Your task to perform on an android device: Do I have any events this weekend? Image 0: 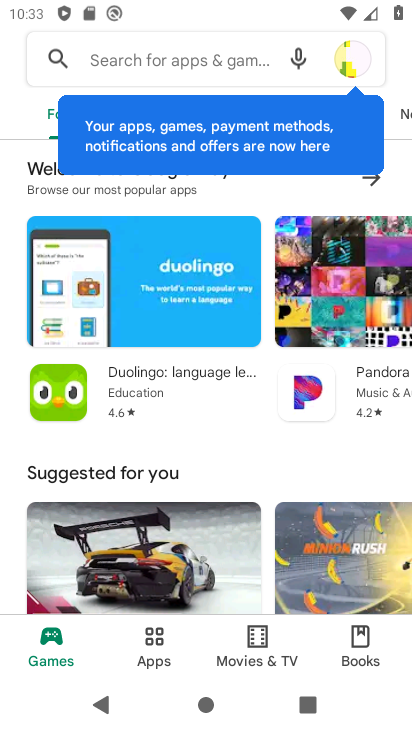
Step 0: press home button
Your task to perform on an android device: Do I have any events this weekend? Image 1: 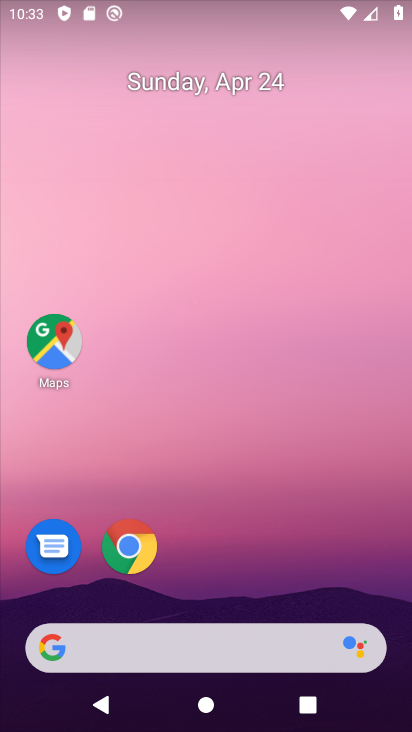
Step 1: drag from (240, 571) to (199, 109)
Your task to perform on an android device: Do I have any events this weekend? Image 2: 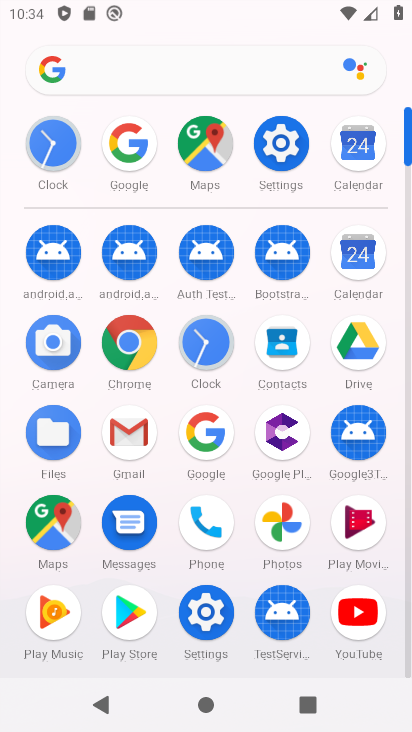
Step 2: click (357, 243)
Your task to perform on an android device: Do I have any events this weekend? Image 3: 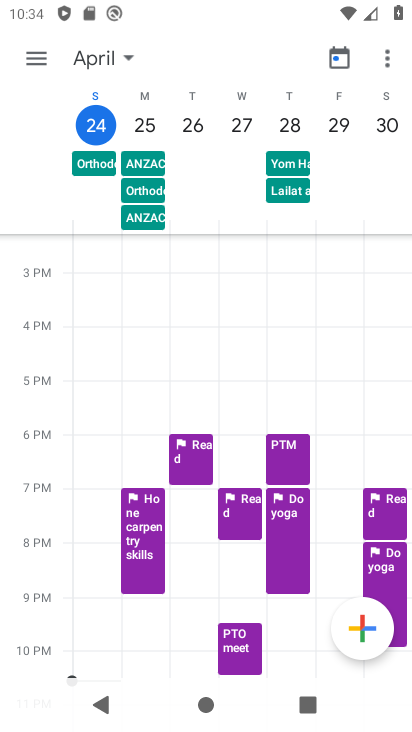
Step 3: click (37, 58)
Your task to perform on an android device: Do I have any events this weekend? Image 4: 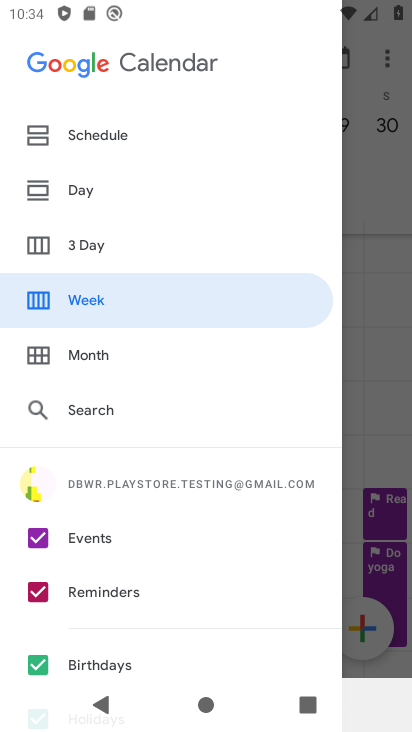
Step 4: click (393, 122)
Your task to perform on an android device: Do I have any events this weekend? Image 5: 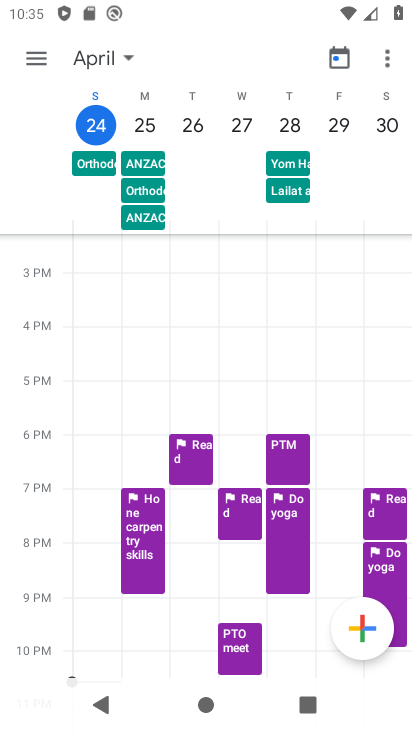
Step 5: click (379, 123)
Your task to perform on an android device: Do I have any events this weekend? Image 6: 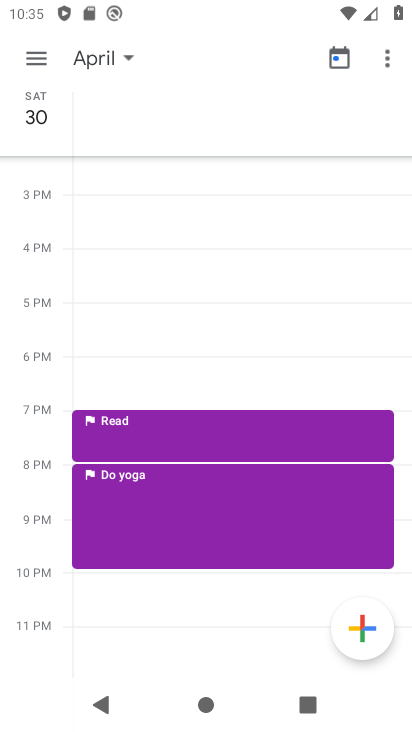
Step 6: task complete